Your task to perform on an android device: clear history in the chrome app Image 0: 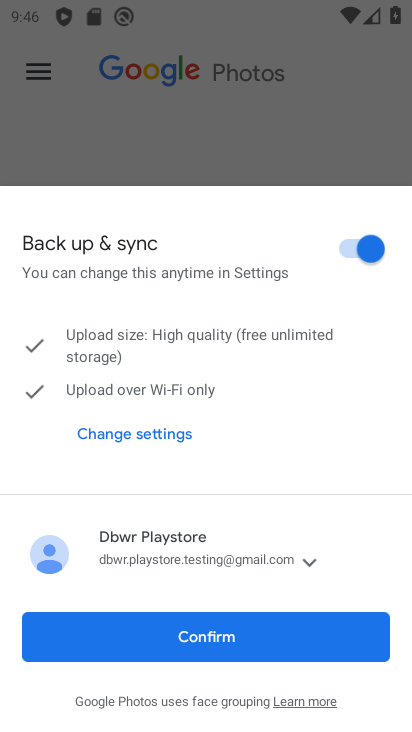
Step 0: press home button
Your task to perform on an android device: clear history in the chrome app Image 1: 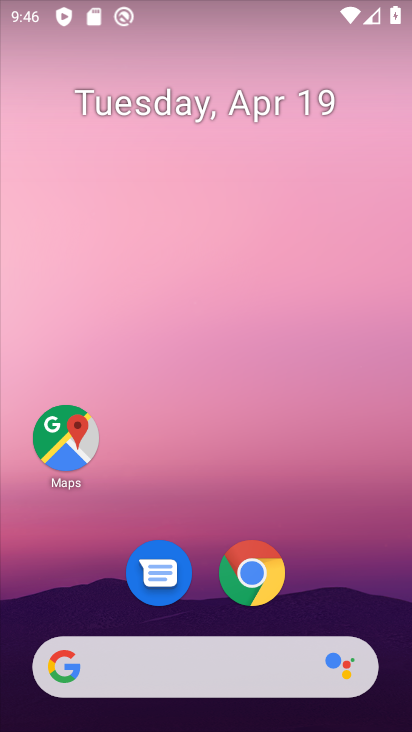
Step 1: drag from (369, 585) to (374, 103)
Your task to perform on an android device: clear history in the chrome app Image 2: 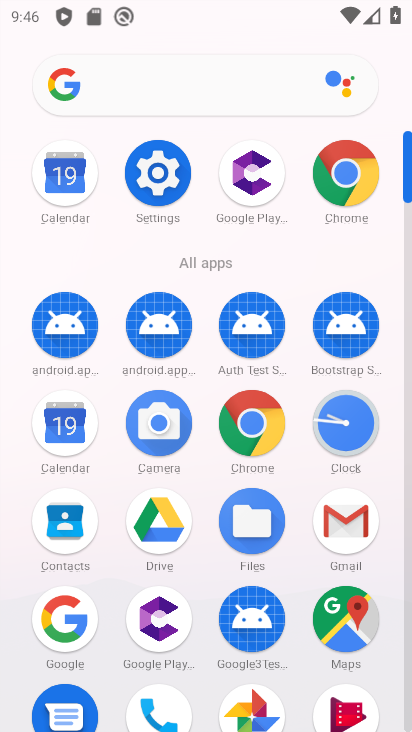
Step 2: click (268, 423)
Your task to perform on an android device: clear history in the chrome app Image 3: 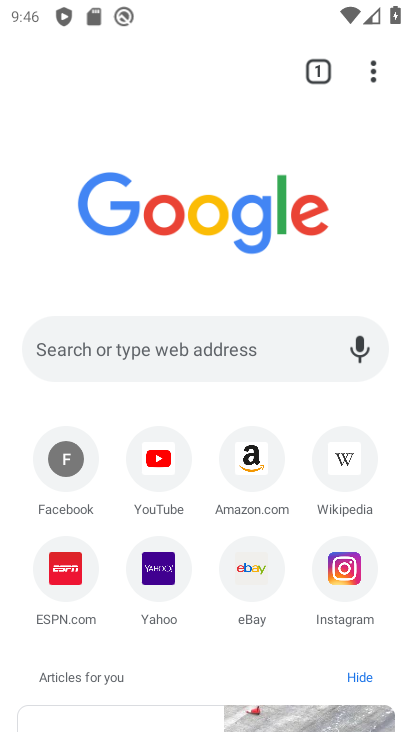
Step 3: click (370, 73)
Your task to perform on an android device: clear history in the chrome app Image 4: 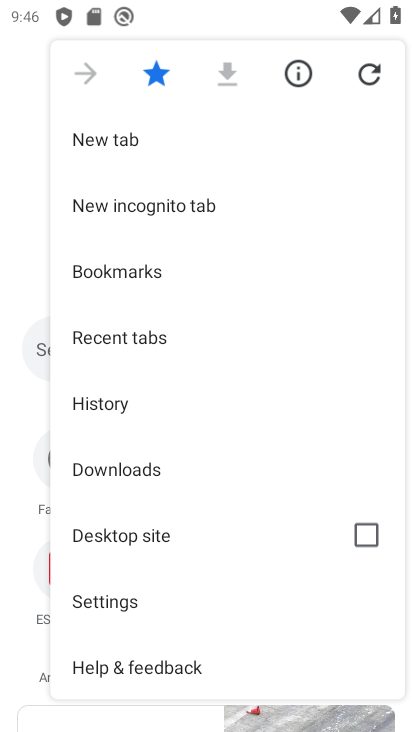
Step 4: click (116, 403)
Your task to perform on an android device: clear history in the chrome app Image 5: 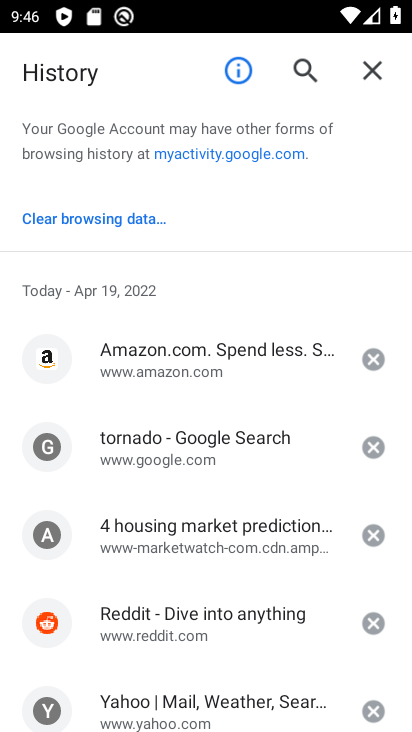
Step 5: click (127, 219)
Your task to perform on an android device: clear history in the chrome app Image 6: 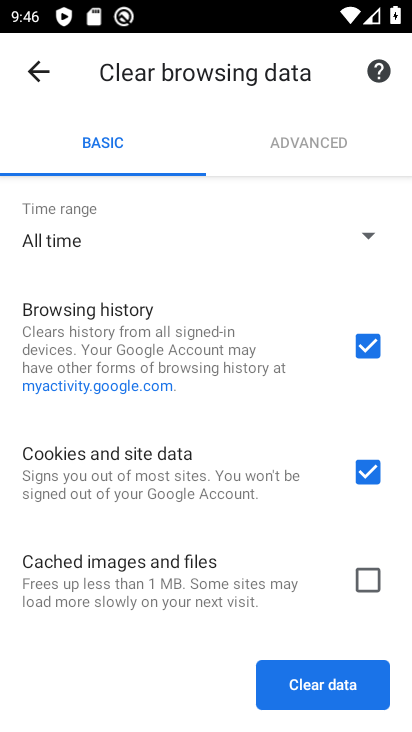
Step 6: click (319, 679)
Your task to perform on an android device: clear history in the chrome app Image 7: 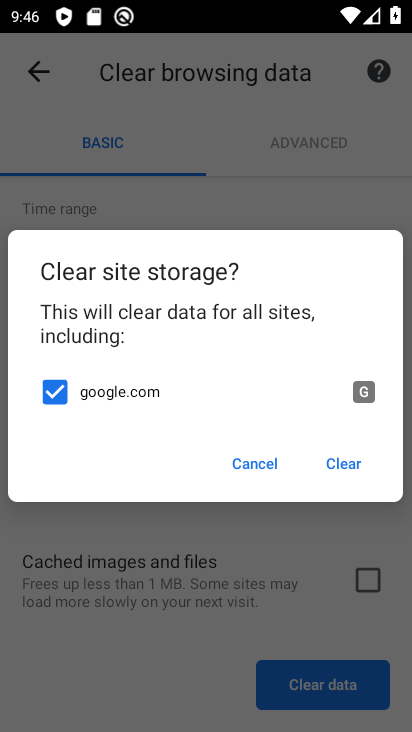
Step 7: click (343, 467)
Your task to perform on an android device: clear history in the chrome app Image 8: 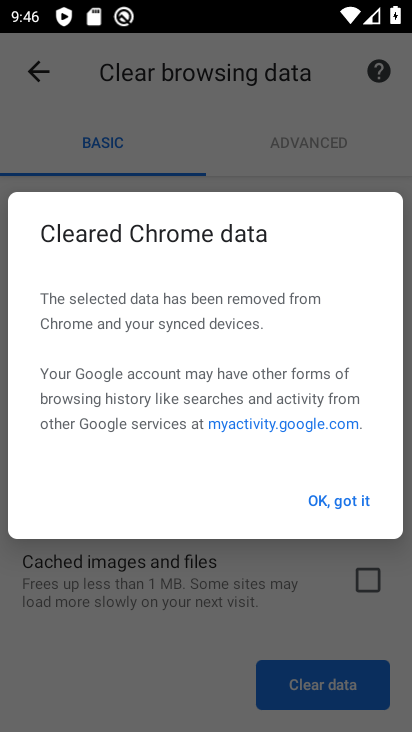
Step 8: click (340, 501)
Your task to perform on an android device: clear history in the chrome app Image 9: 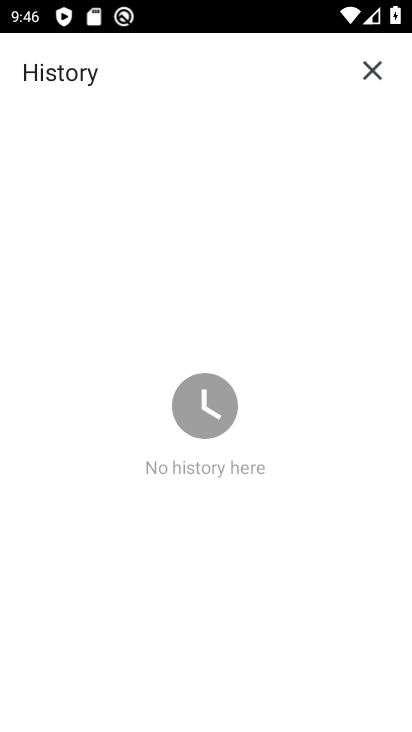
Step 9: task complete